Your task to perform on an android device: delete browsing data in the chrome app Image 0: 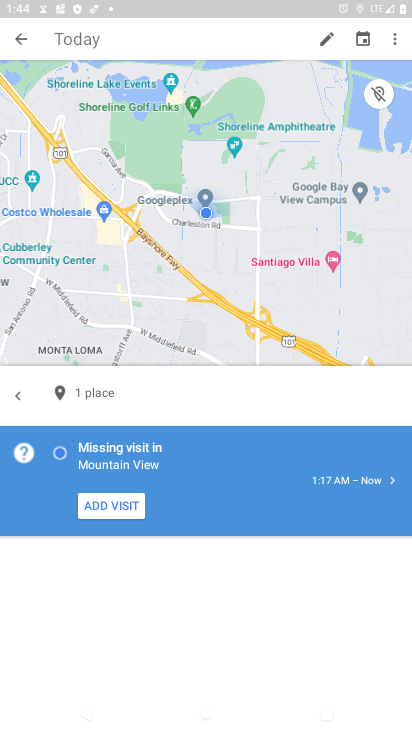
Step 0: press home button
Your task to perform on an android device: delete browsing data in the chrome app Image 1: 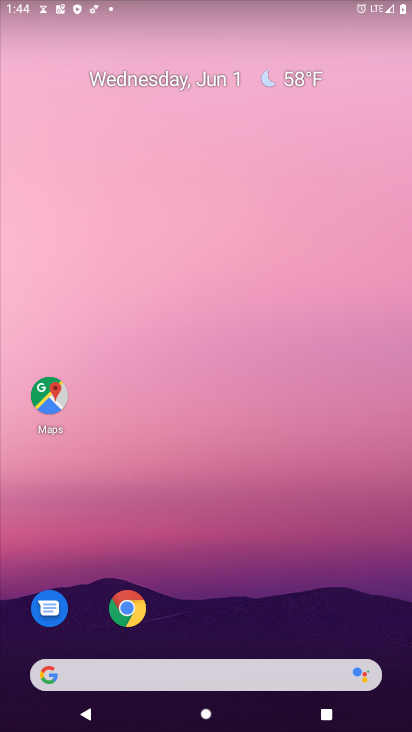
Step 1: click (123, 610)
Your task to perform on an android device: delete browsing data in the chrome app Image 2: 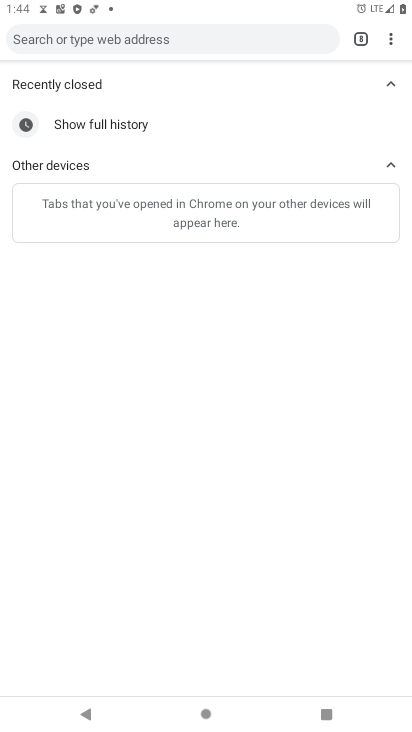
Step 2: press back button
Your task to perform on an android device: delete browsing data in the chrome app Image 3: 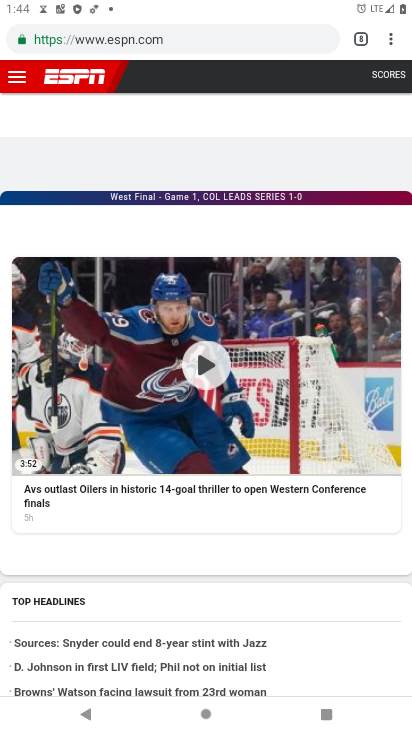
Step 3: click (396, 24)
Your task to perform on an android device: delete browsing data in the chrome app Image 4: 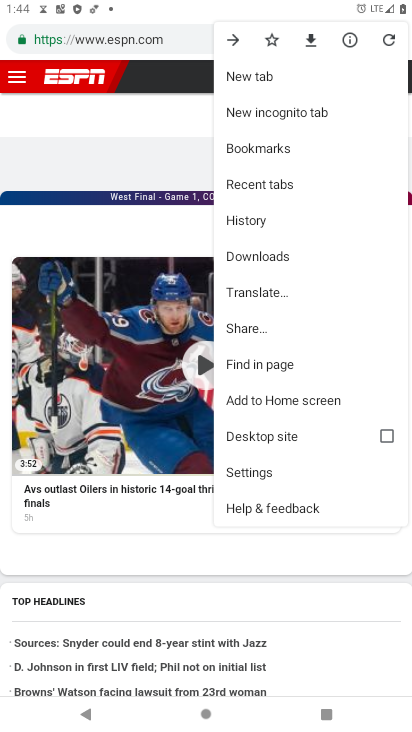
Step 4: click (292, 467)
Your task to perform on an android device: delete browsing data in the chrome app Image 5: 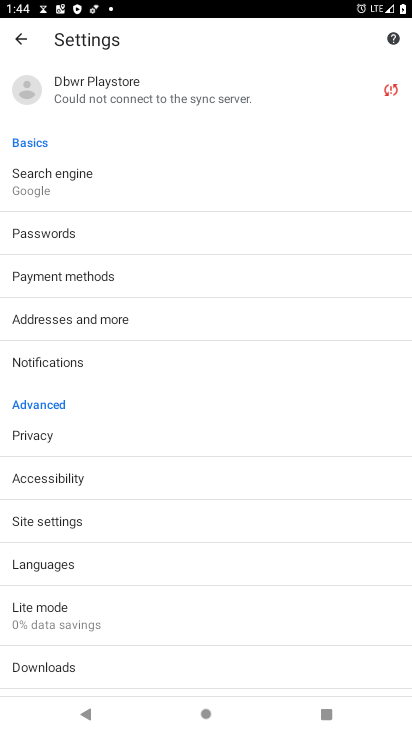
Step 5: drag from (88, 601) to (189, 326)
Your task to perform on an android device: delete browsing data in the chrome app Image 6: 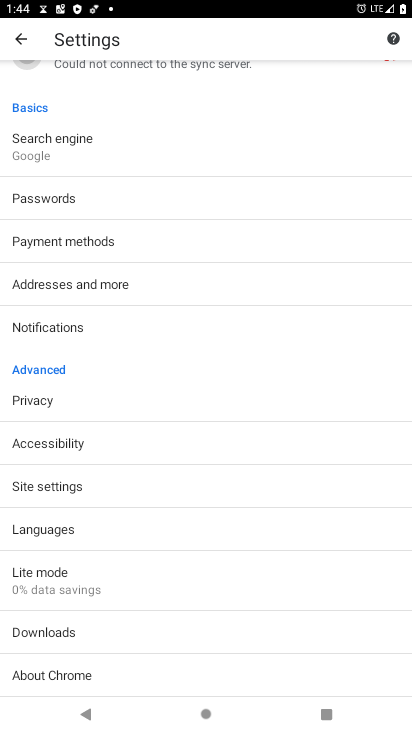
Step 6: click (58, 670)
Your task to perform on an android device: delete browsing data in the chrome app Image 7: 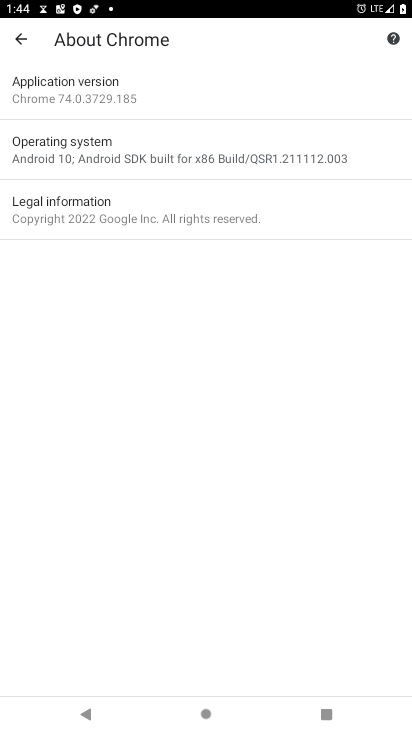
Step 7: press back button
Your task to perform on an android device: delete browsing data in the chrome app Image 8: 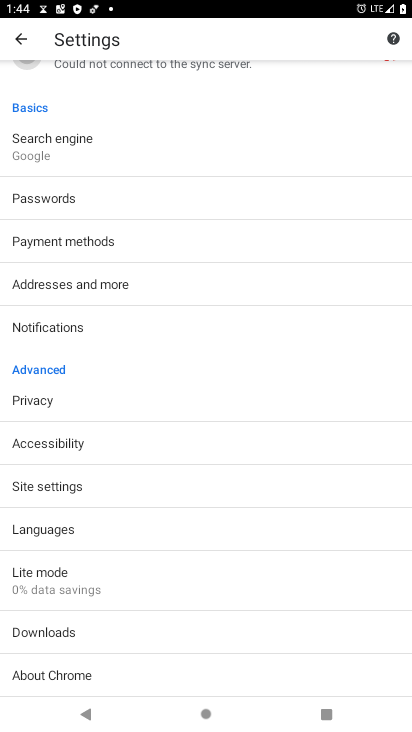
Step 8: click (142, 395)
Your task to perform on an android device: delete browsing data in the chrome app Image 9: 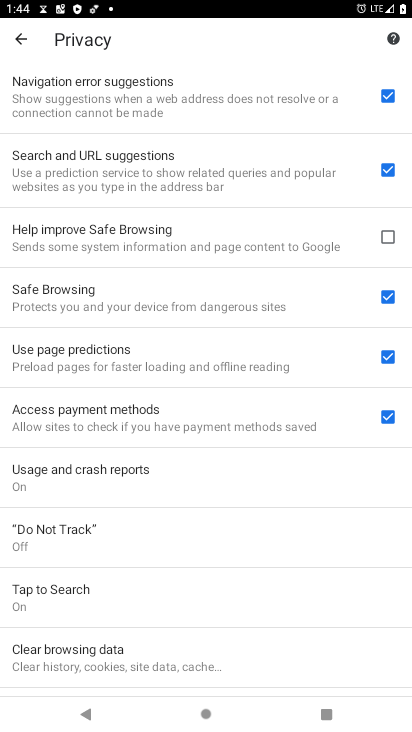
Step 9: drag from (126, 570) to (184, 252)
Your task to perform on an android device: delete browsing data in the chrome app Image 10: 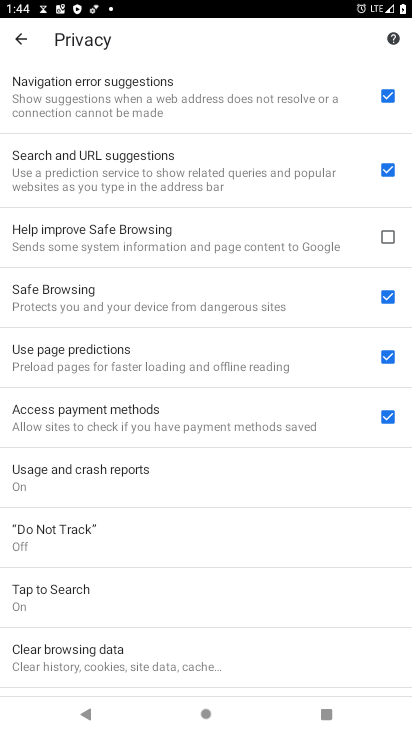
Step 10: click (62, 660)
Your task to perform on an android device: delete browsing data in the chrome app Image 11: 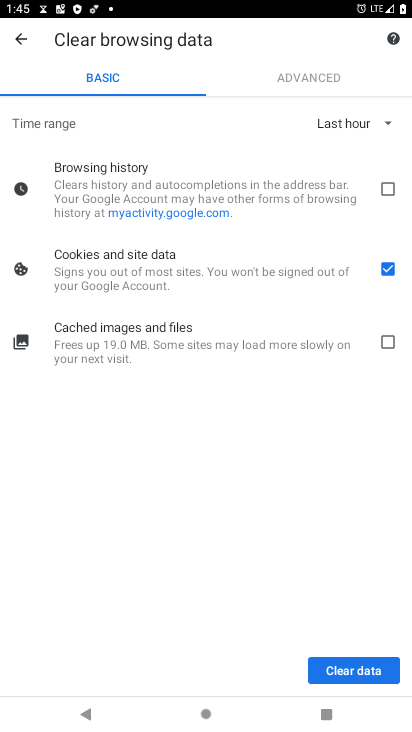
Step 11: click (369, 673)
Your task to perform on an android device: delete browsing data in the chrome app Image 12: 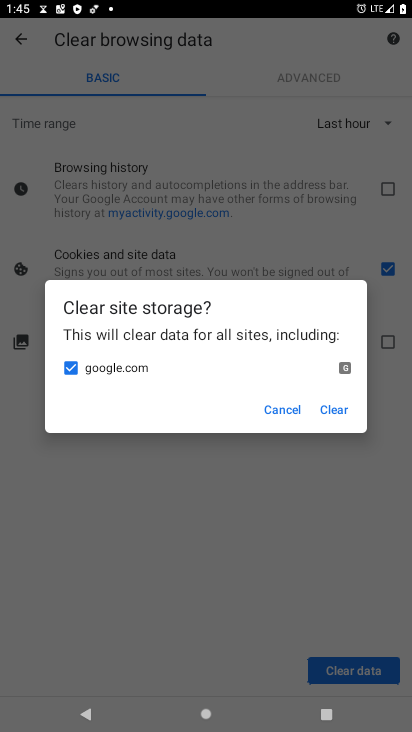
Step 12: click (340, 412)
Your task to perform on an android device: delete browsing data in the chrome app Image 13: 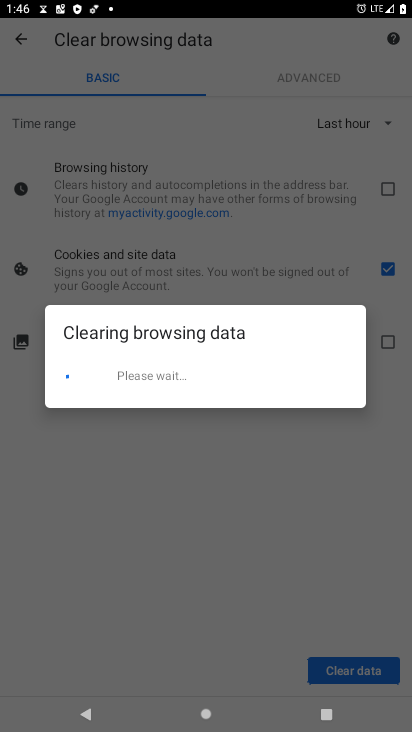
Step 13: task complete